Your task to perform on an android device: turn off location Image 0: 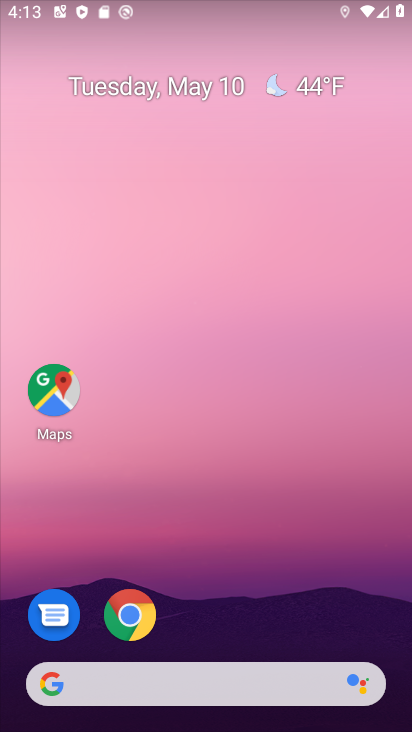
Step 0: drag from (218, 727) to (176, 137)
Your task to perform on an android device: turn off location Image 1: 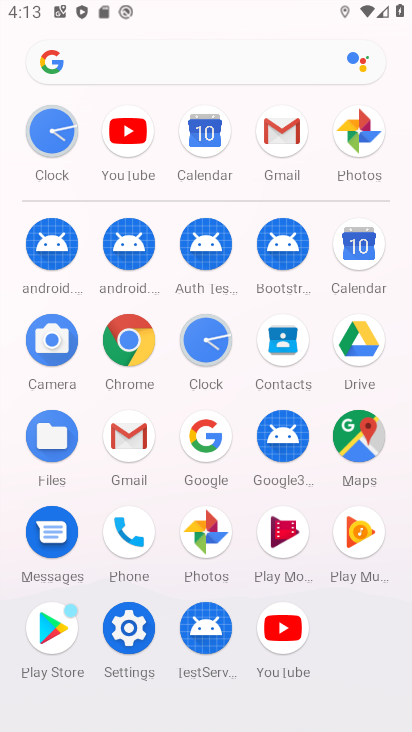
Step 1: click (129, 627)
Your task to perform on an android device: turn off location Image 2: 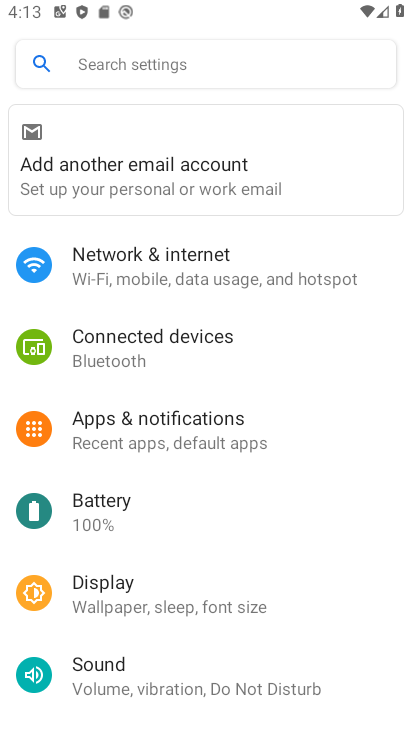
Step 2: drag from (175, 659) to (172, 380)
Your task to perform on an android device: turn off location Image 3: 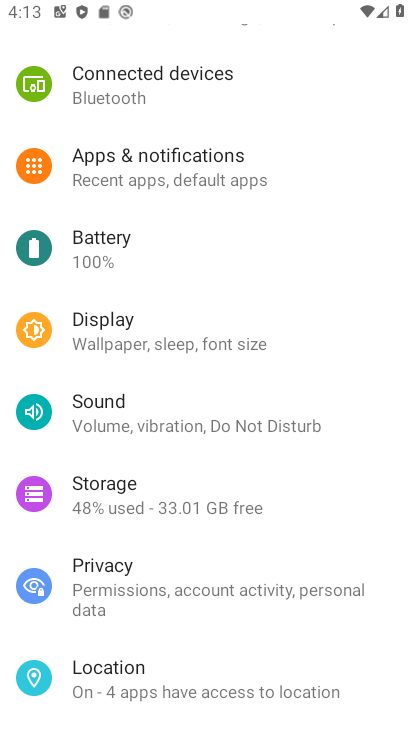
Step 3: click (189, 681)
Your task to perform on an android device: turn off location Image 4: 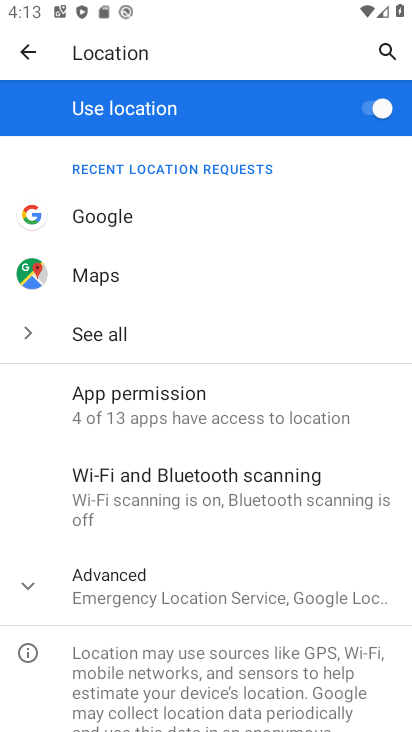
Step 4: click (372, 108)
Your task to perform on an android device: turn off location Image 5: 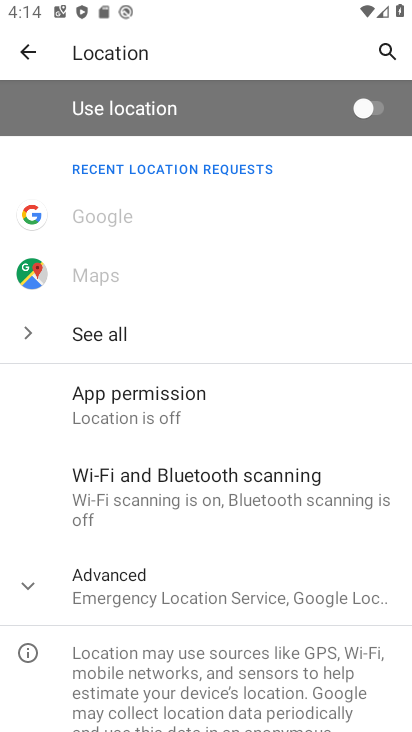
Step 5: task complete